Your task to perform on an android device: change the clock display to analog Image 0: 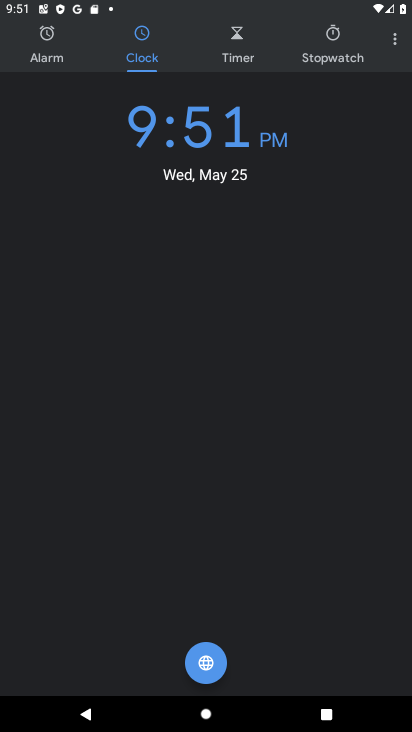
Step 0: click (399, 35)
Your task to perform on an android device: change the clock display to analog Image 1: 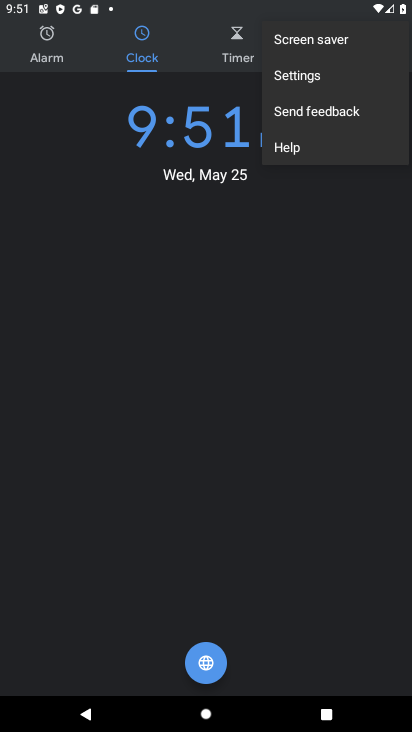
Step 1: click (327, 83)
Your task to perform on an android device: change the clock display to analog Image 2: 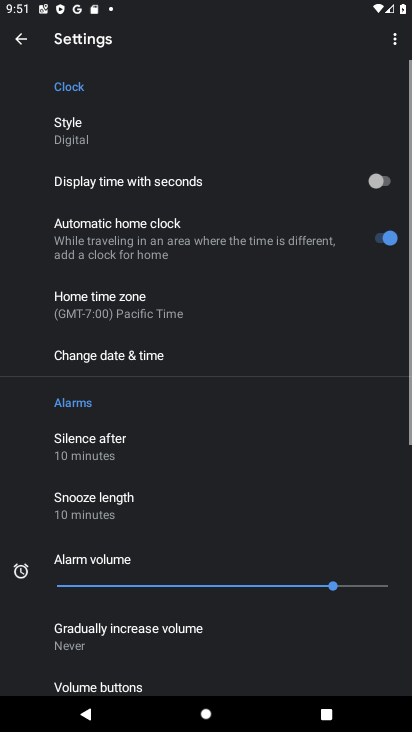
Step 2: click (64, 134)
Your task to perform on an android device: change the clock display to analog Image 3: 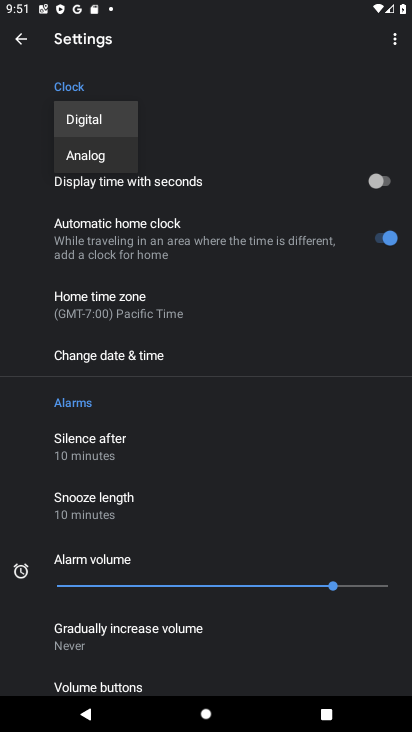
Step 3: click (82, 162)
Your task to perform on an android device: change the clock display to analog Image 4: 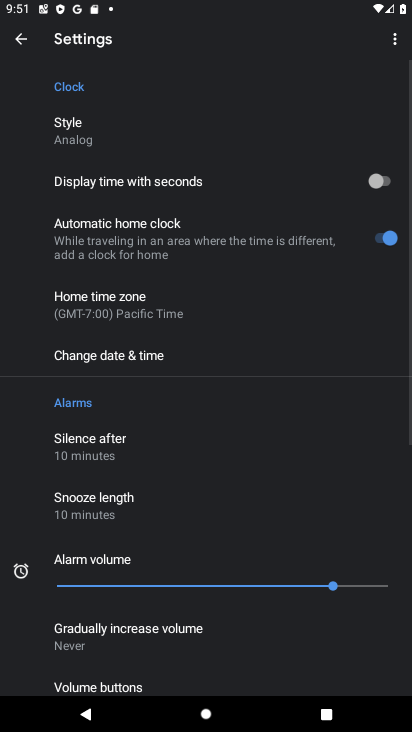
Step 4: task complete